Your task to perform on an android device: Open Google Maps and go to "Timeline" Image 0: 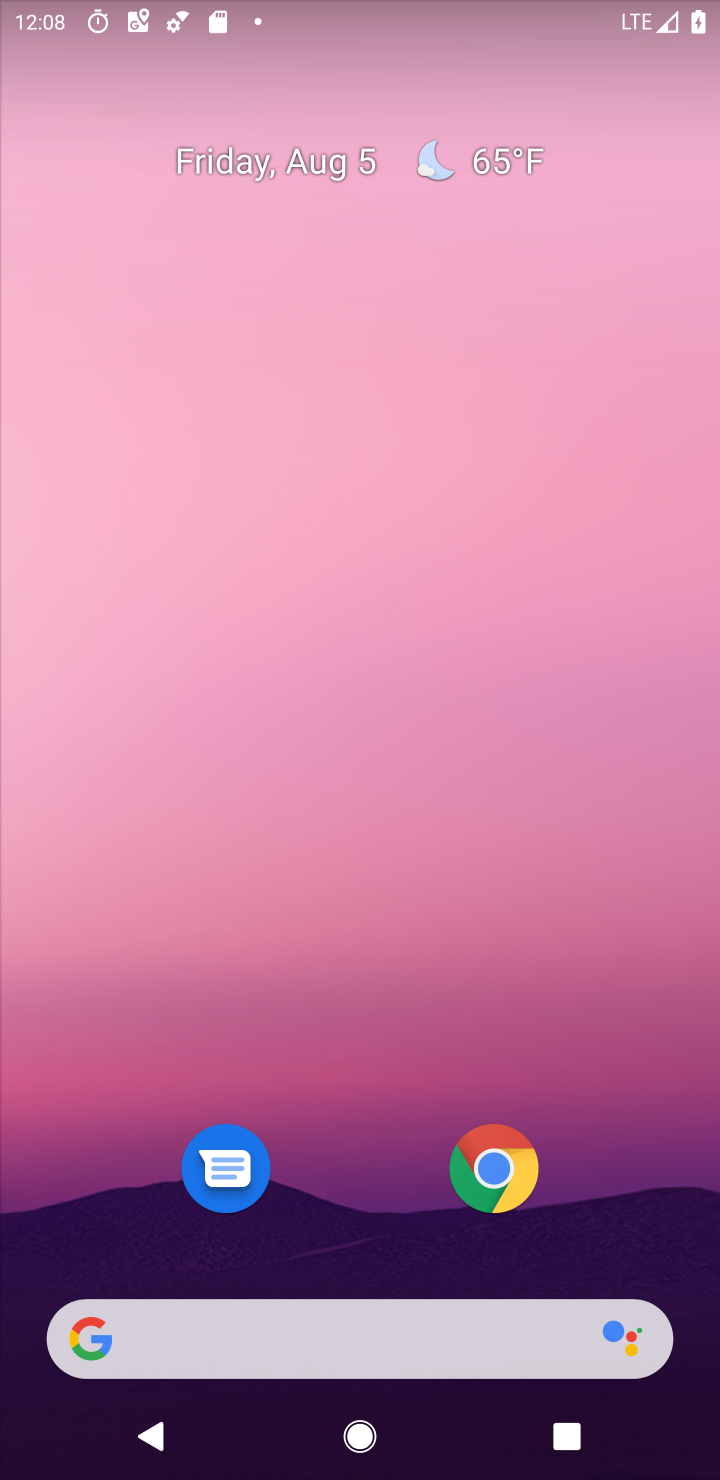
Step 0: drag from (317, 1183) to (507, 0)
Your task to perform on an android device: Open Google Maps and go to "Timeline" Image 1: 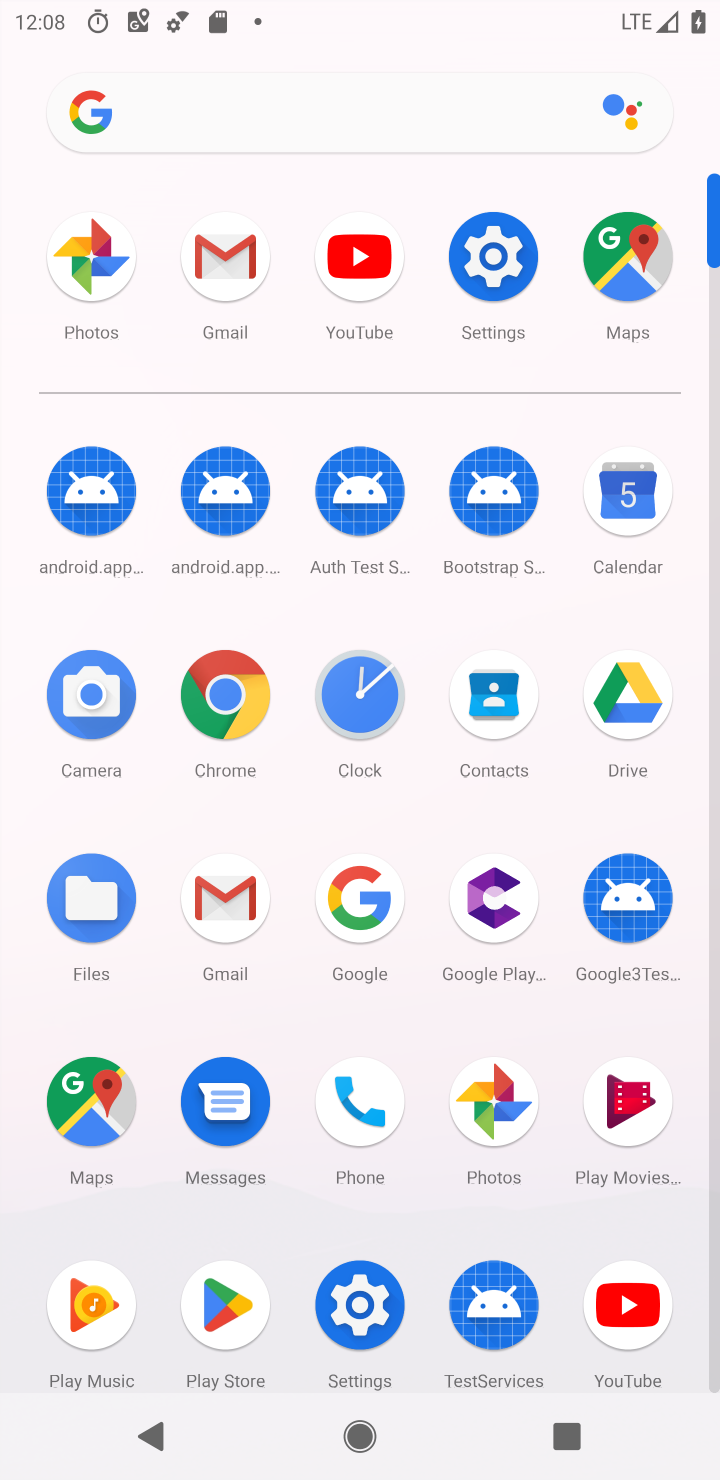
Step 1: click (99, 1111)
Your task to perform on an android device: Open Google Maps and go to "Timeline" Image 2: 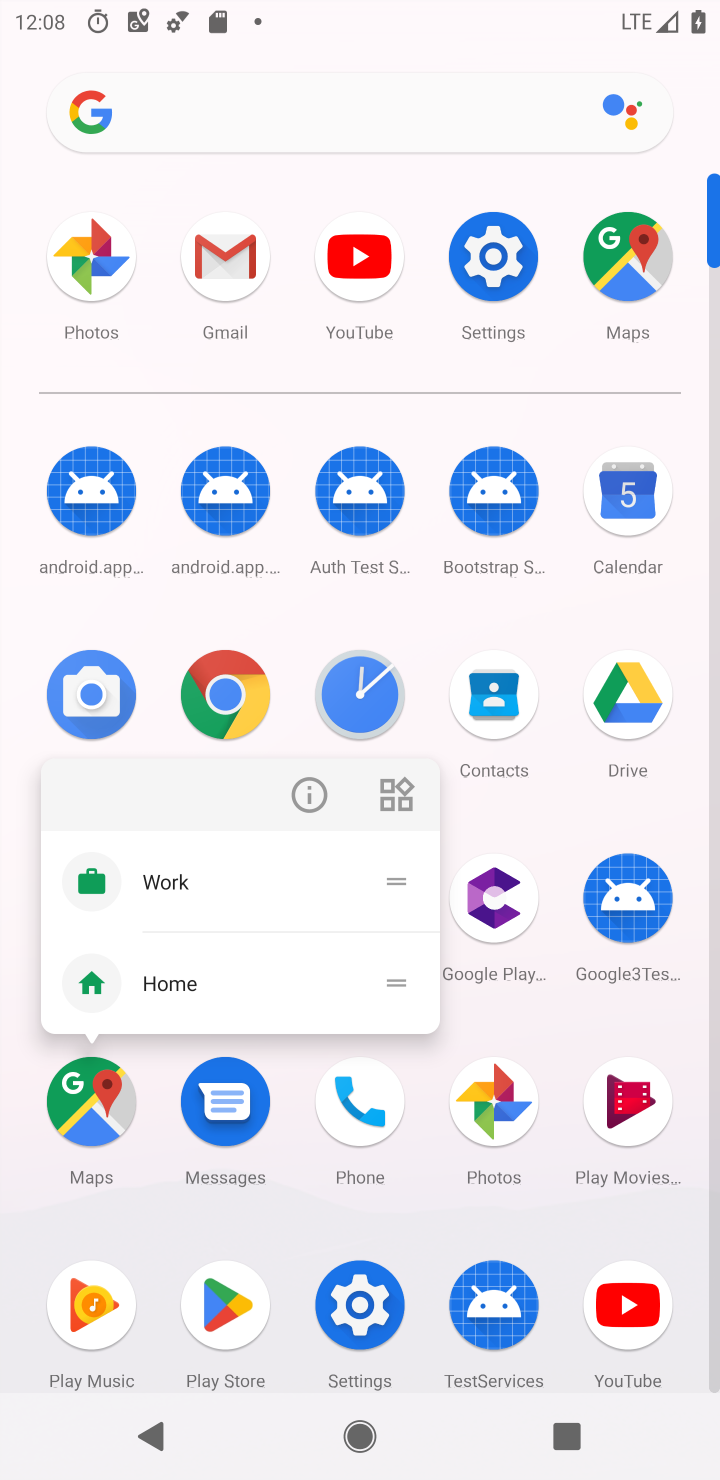
Step 2: click (103, 1083)
Your task to perform on an android device: Open Google Maps and go to "Timeline" Image 3: 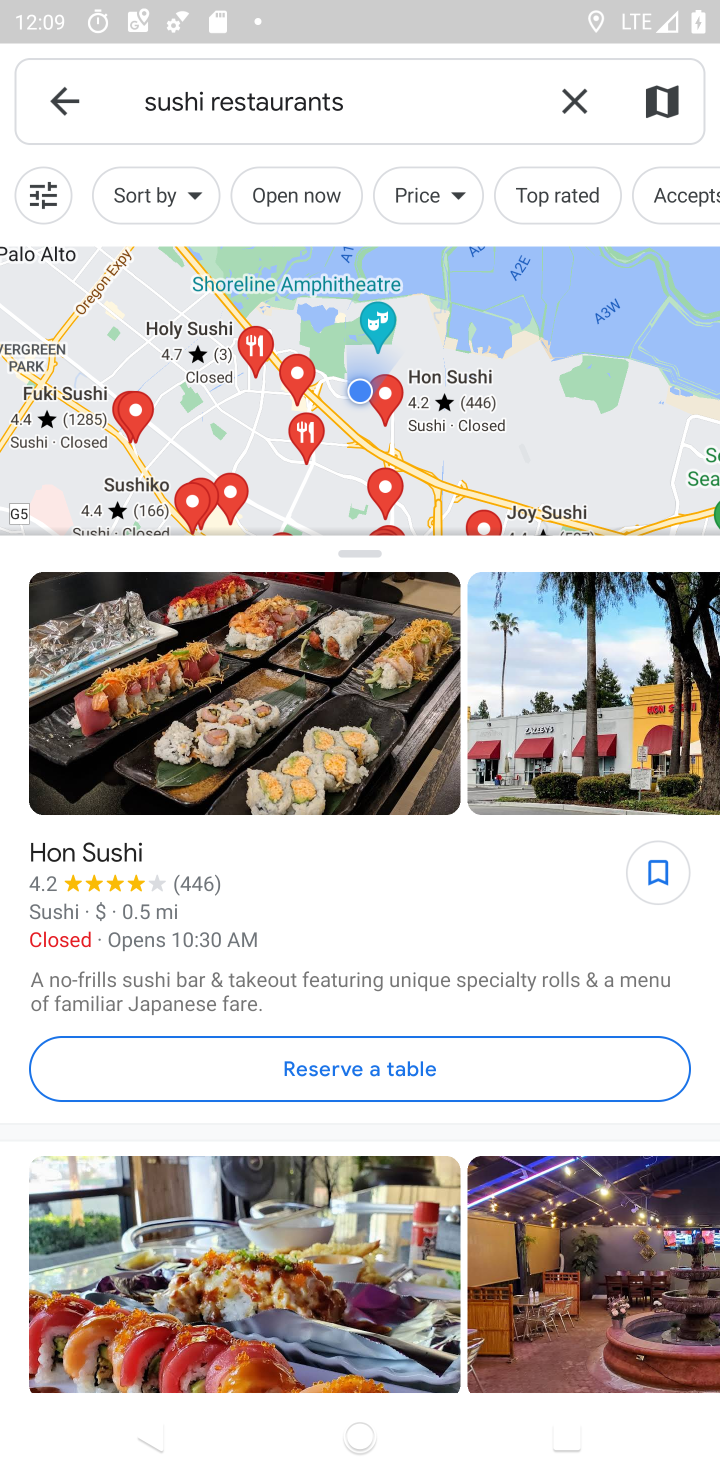
Step 3: click (43, 83)
Your task to perform on an android device: Open Google Maps and go to "Timeline" Image 4: 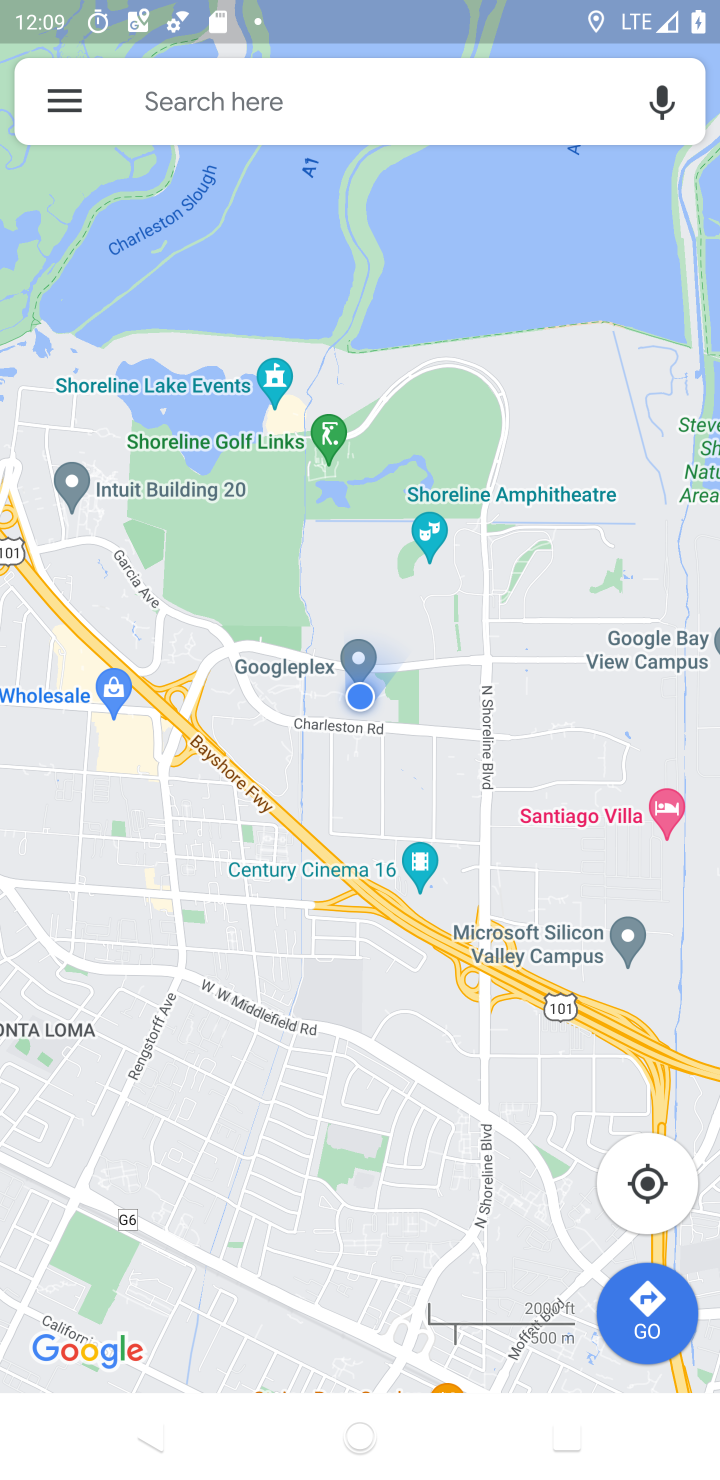
Step 4: click (66, 99)
Your task to perform on an android device: Open Google Maps and go to "Timeline" Image 5: 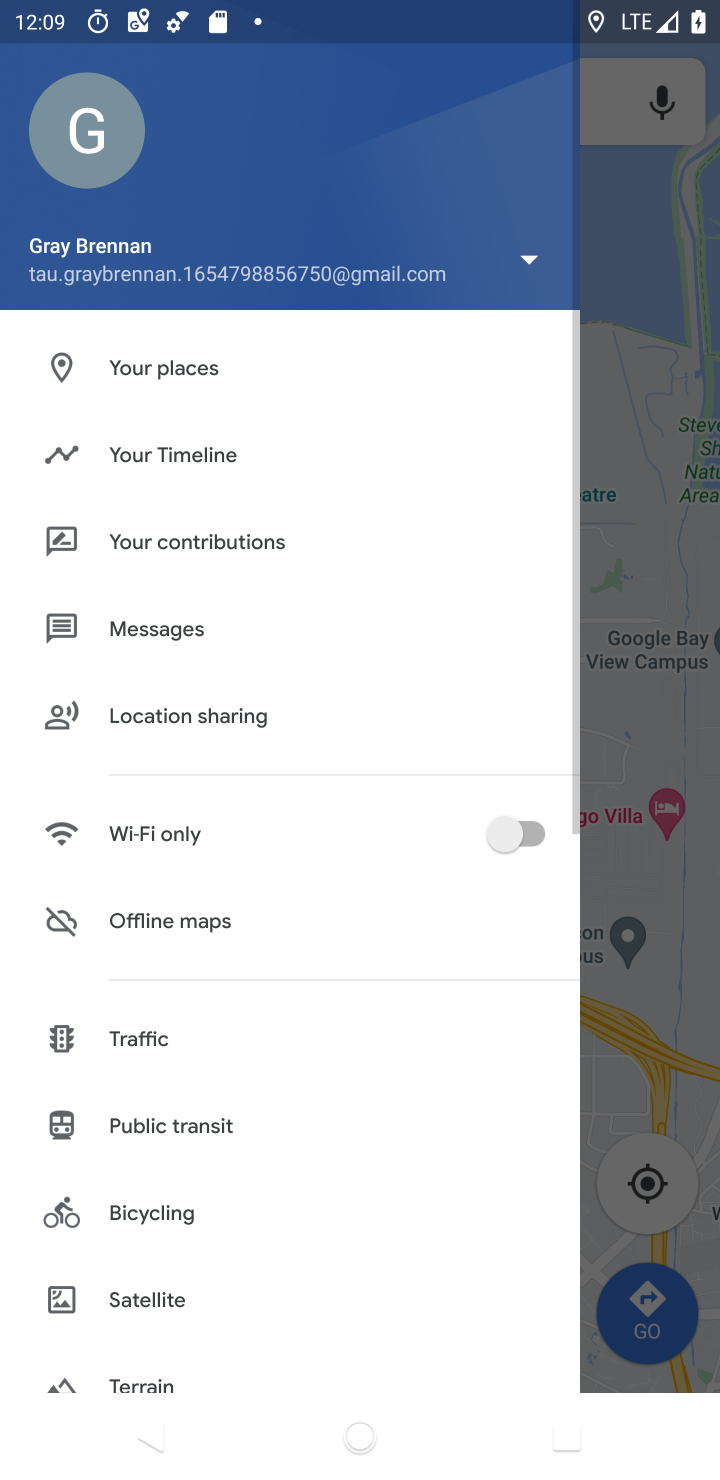
Step 5: click (165, 456)
Your task to perform on an android device: Open Google Maps and go to "Timeline" Image 6: 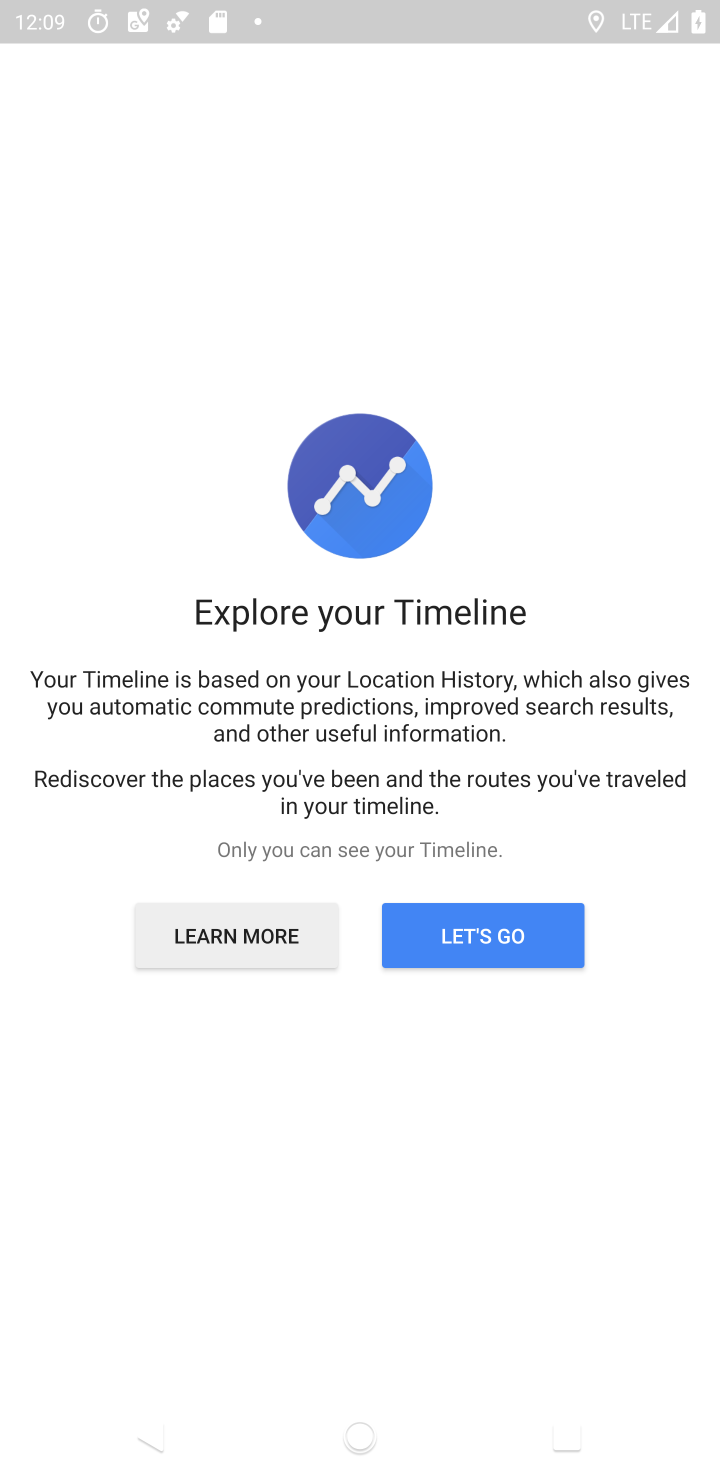
Step 6: click (488, 950)
Your task to perform on an android device: Open Google Maps and go to "Timeline" Image 7: 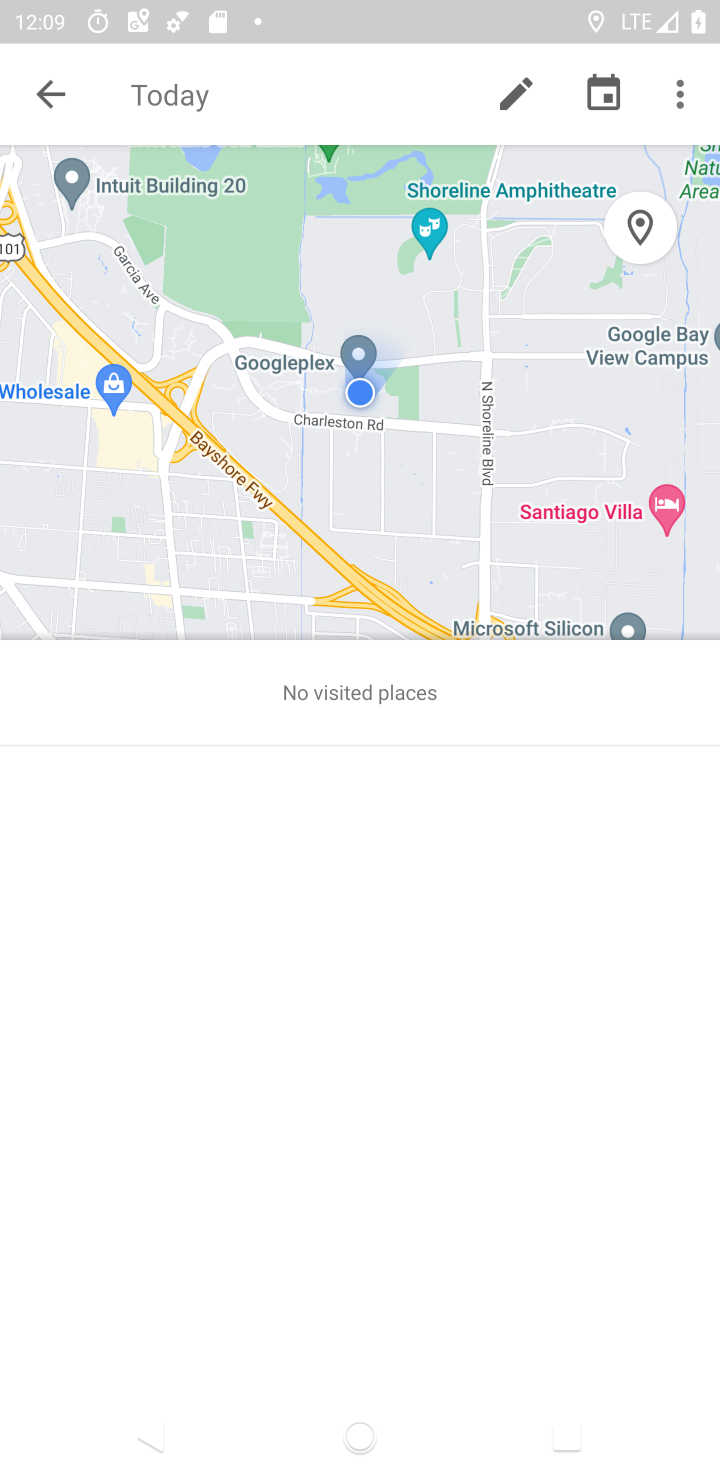
Step 7: task complete